Your task to perform on an android device: Show the shopping cart on bestbuy. Add amazon basics triple a to the cart on bestbuy Image 0: 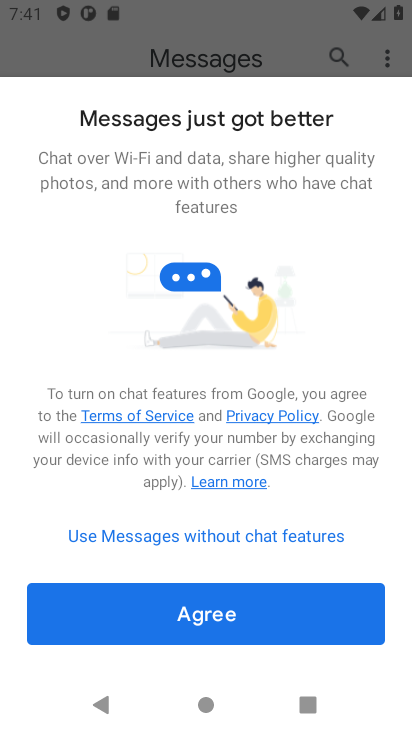
Step 0: press home button
Your task to perform on an android device: Show the shopping cart on bestbuy. Add amazon basics triple a to the cart on bestbuy Image 1: 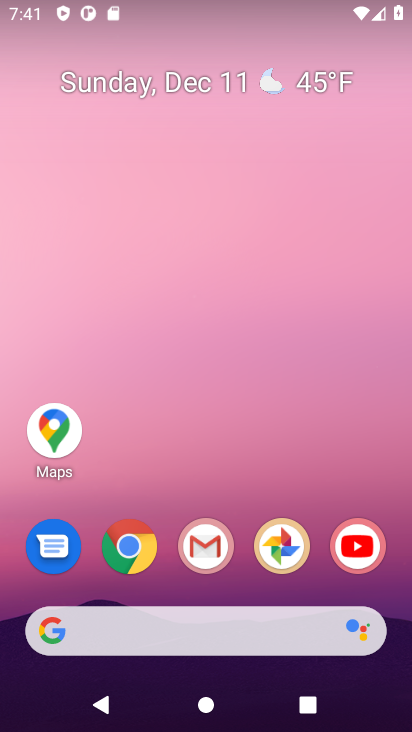
Step 1: click (130, 554)
Your task to perform on an android device: Show the shopping cart on bestbuy. Add amazon basics triple a to the cart on bestbuy Image 2: 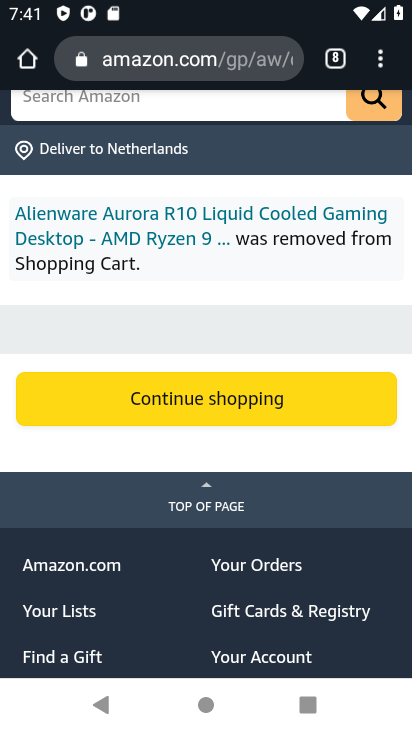
Step 2: click (163, 69)
Your task to perform on an android device: Show the shopping cart on bestbuy. Add amazon basics triple a to the cart on bestbuy Image 3: 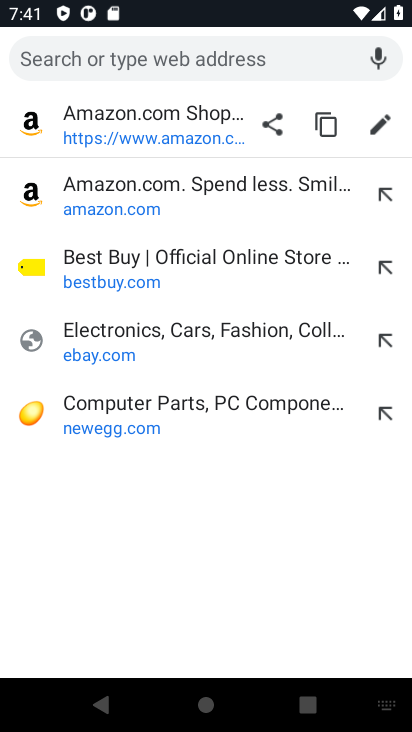
Step 3: click (89, 262)
Your task to perform on an android device: Show the shopping cart on bestbuy. Add amazon basics triple a to the cart on bestbuy Image 4: 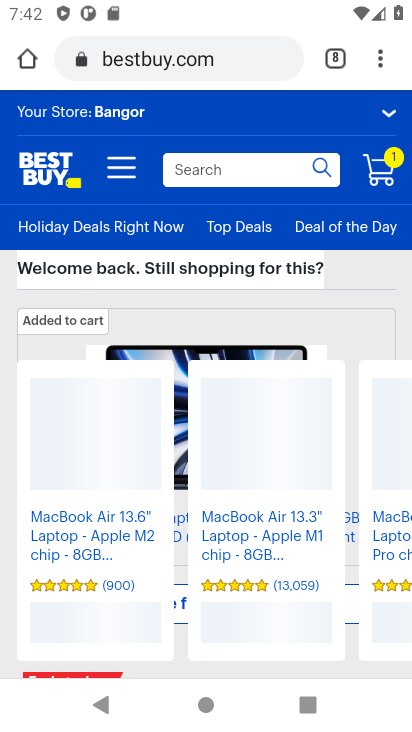
Step 4: click (383, 176)
Your task to perform on an android device: Show the shopping cart on bestbuy. Add amazon basics triple a to the cart on bestbuy Image 5: 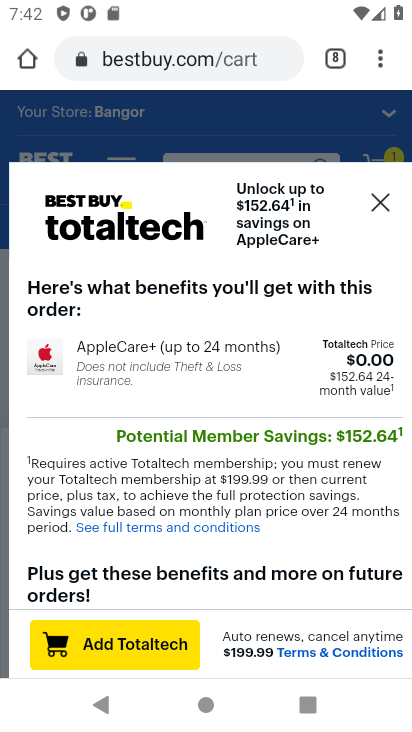
Step 5: click (376, 203)
Your task to perform on an android device: Show the shopping cart on bestbuy. Add amazon basics triple a to the cart on bestbuy Image 6: 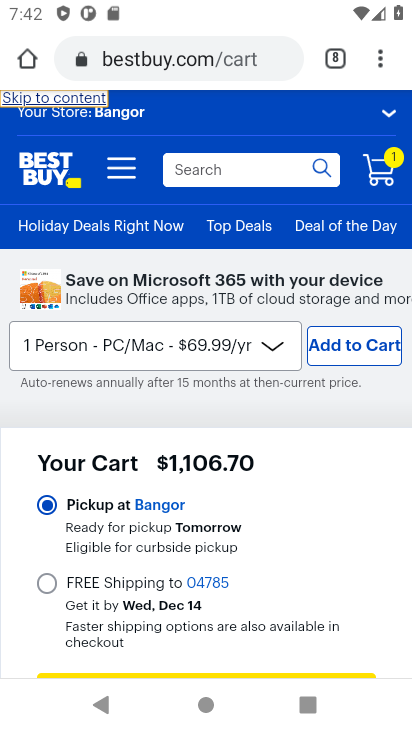
Step 6: drag from (279, 488) to (263, 143)
Your task to perform on an android device: Show the shopping cart on bestbuy. Add amazon basics triple a to the cart on bestbuy Image 7: 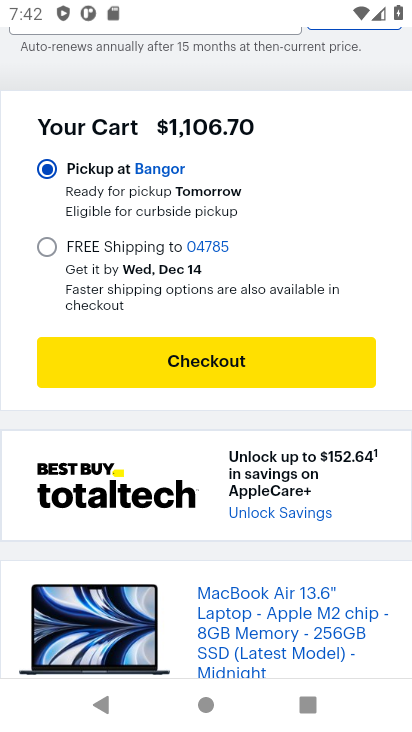
Step 7: drag from (284, 191) to (259, 488)
Your task to perform on an android device: Show the shopping cart on bestbuy. Add amazon basics triple a to the cart on bestbuy Image 8: 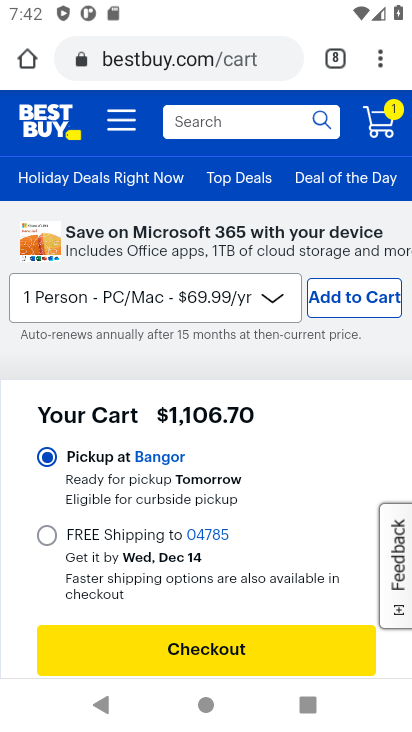
Step 8: click (187, 123)
Your task to perform on an android device: Show the shopping cart on bestbuy. Add amazon basics triple a to the cart on bestbuy Image 9: 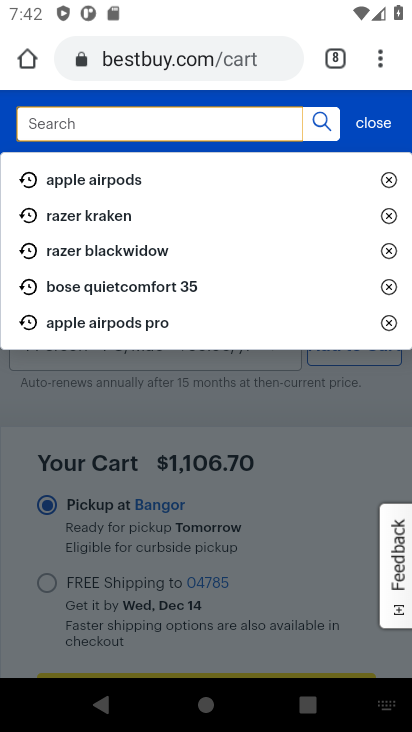
Step 9: type "amazon basics triple a"
Your task to perform on an android device: Show the shopping cart on bestbuy. Add amazon basics triple a to the cart on bestbuy Image 10: 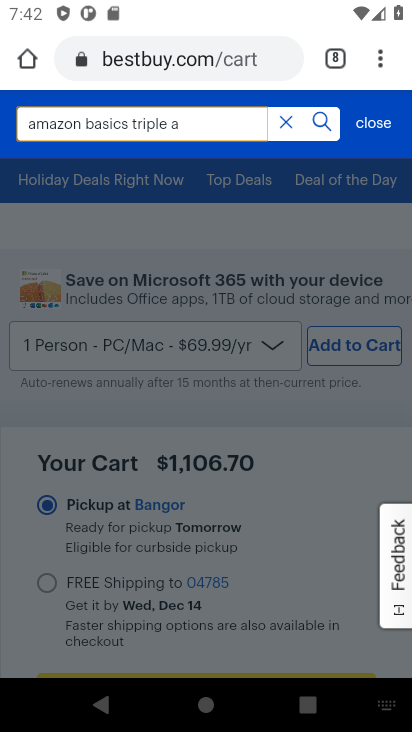
Step 10: click (318, 119)
Your task to perform on an android device: Show the shopping cart on bestbuy. Add amazon basics triple a to the cart on bestbuy Image 11: 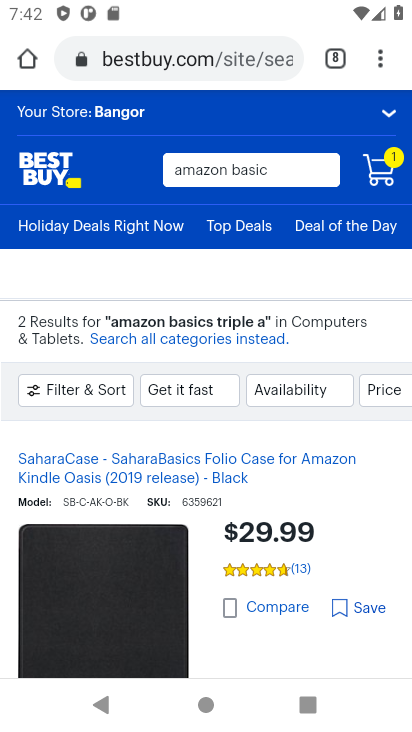
Step 11: task complete